Your task to perform on an android device: Go to CNN.com Image 0: 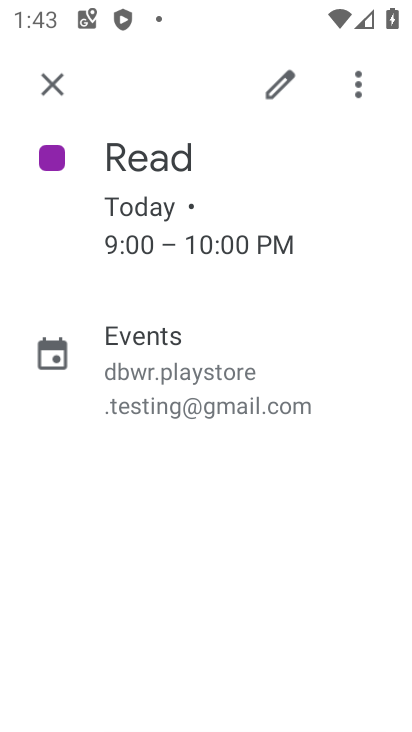
Step 0: drag from (226, 514) to (220, 241)
Your task to perform on an android device: Go to CNN.com Image 1: 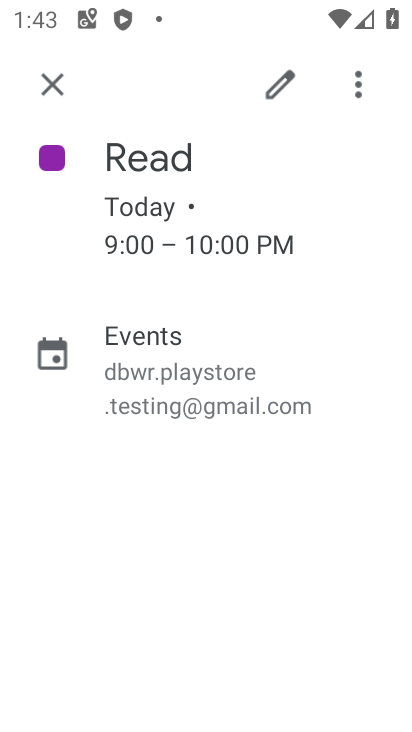
Step 1: drag from (181, 406) to (148, 161)
Your task to perform on an android device: Go to CNN.com Image 2: 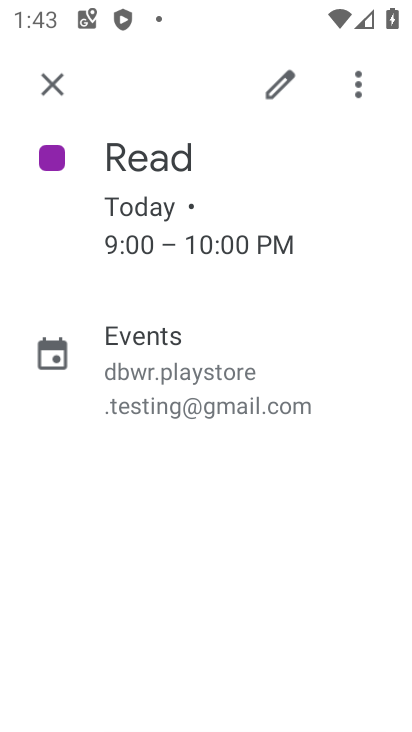
Step 2: press home button
Your task to perform on an android device: Go to CNN.com Image 3: 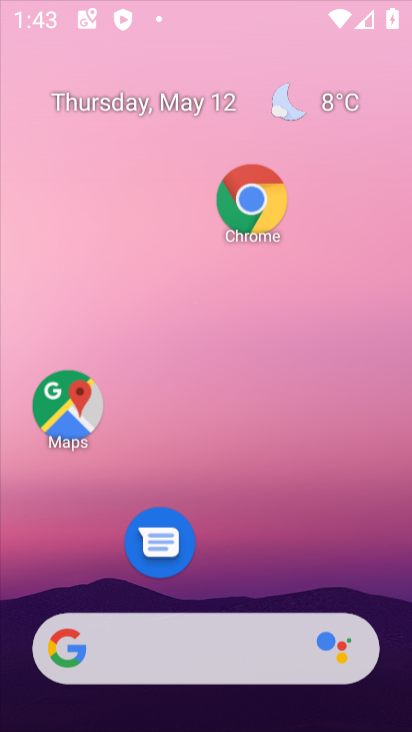
Step 3: drag from (213, 569) to (272, 65)
Your task to perform on an android device: Go to CNN.com Image 4: 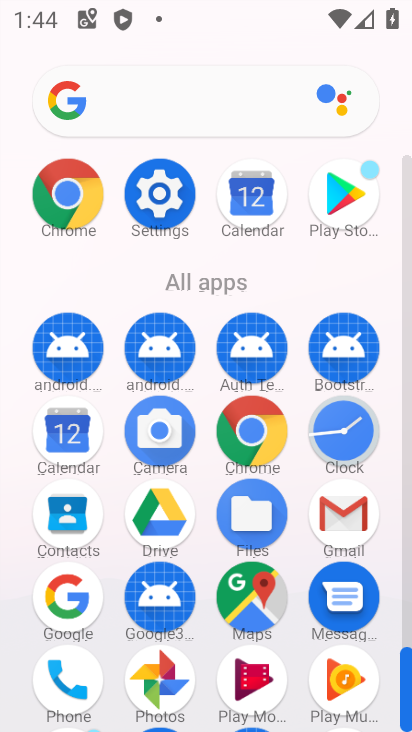
Step 4: click (183, 104)
Your task to perform on an android device: Go to CNN.com Image 5: 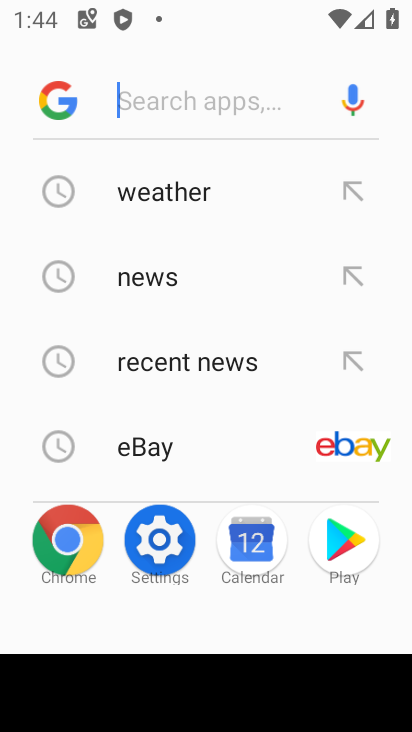
Step 5: type "cn"
Your task to perform on an android device: Go to CNN.com Image 6: 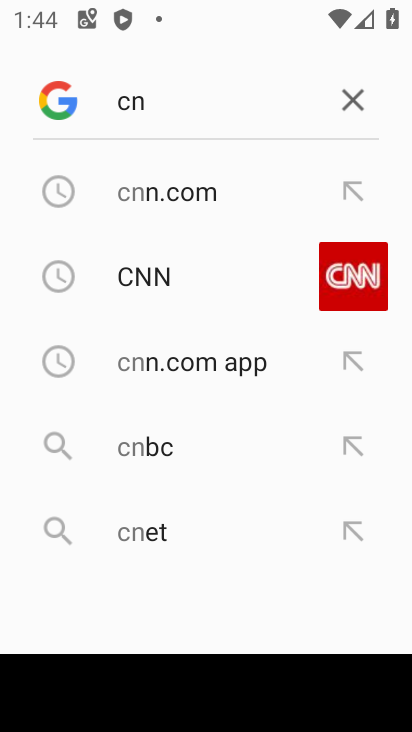
Step 6: click (194, 193)
Your task to perform on an android device: Go to CNN.com Image 7: 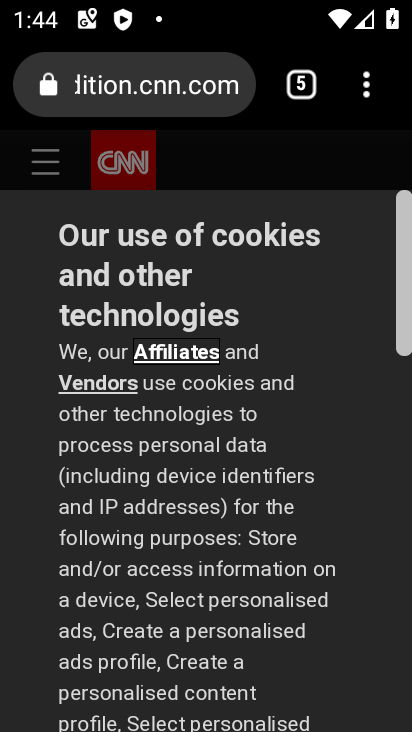
Step 7: task complete